Your task to perform on an android device: Open calendar and show me the second week of next month Image 0: 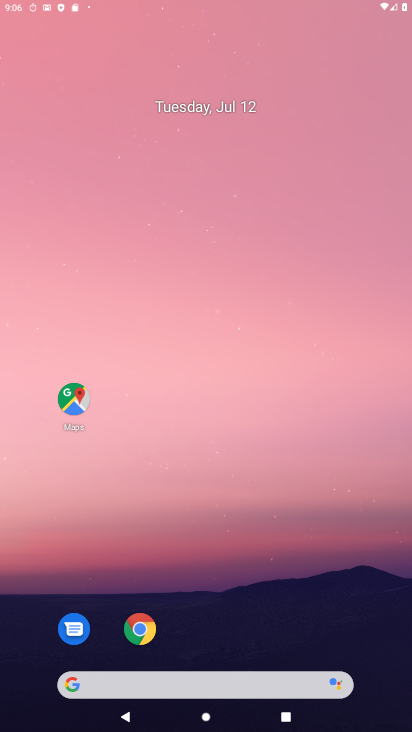
Step 0: drag from (230, 662) to (132, 7)
Your task to perform on an android device: Open calendar and show me the second week of next month Image 1: 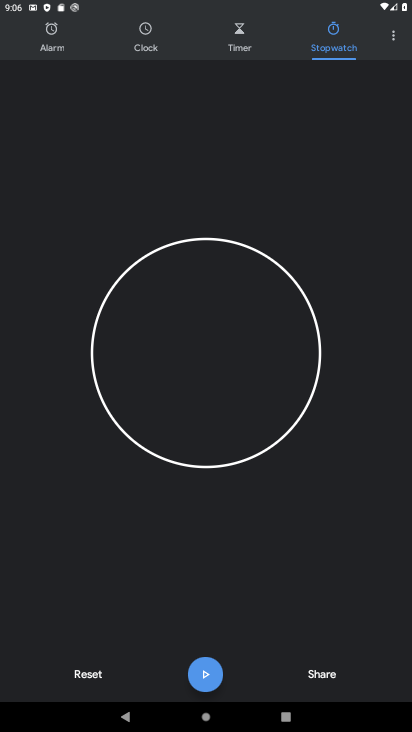
Step 1: press back button
Your task to perform on an android device: Open calendar and show me the second week of next month Image 2: 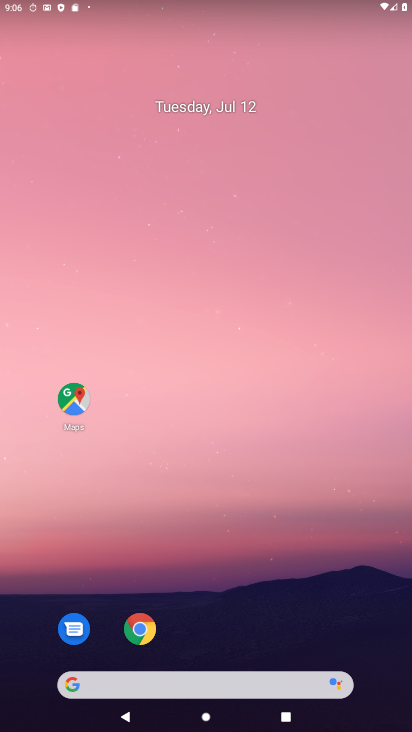
Step 2: drag from (245, 710) to (152, 0)
Your task to perform on an android device: Open calendar and show me the second week of next month Image 3: 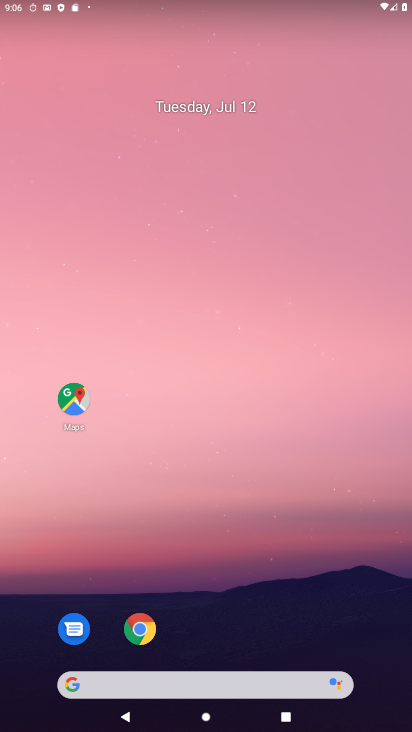
Step 3: drag from (243, 661) to (169, 124)
Your task to perform on an android device: Open calendar and show me the second week of next month Image 4: 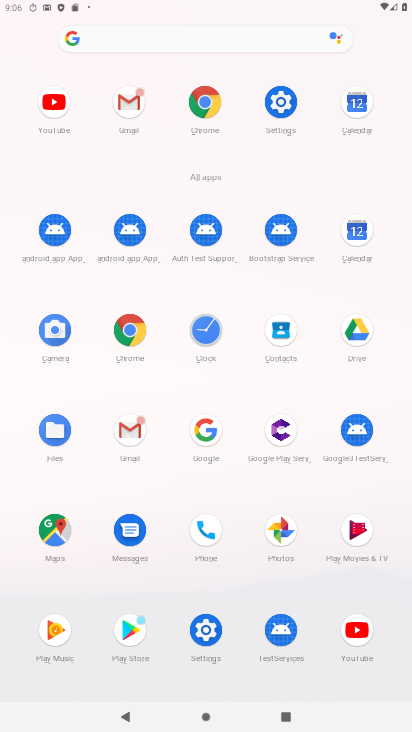
Step 4: click (358, 235)
Your task to perform on an android device: Open calendar and show me the second week of next month Image 5: 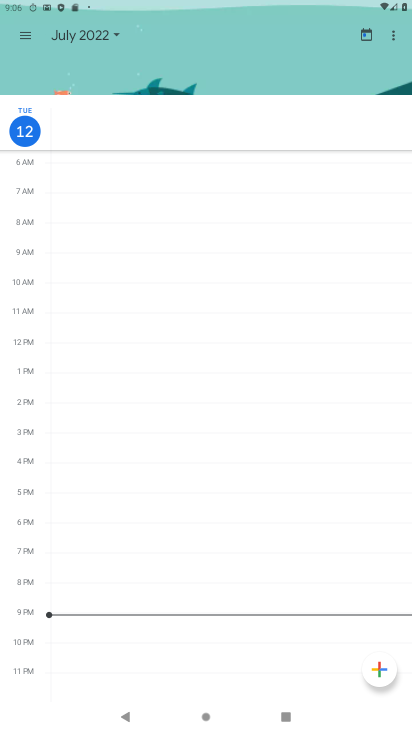
Step 5: click (111, 39)
Your task to perform on an android device: Open calendar and show me the second week of next month Image 6: 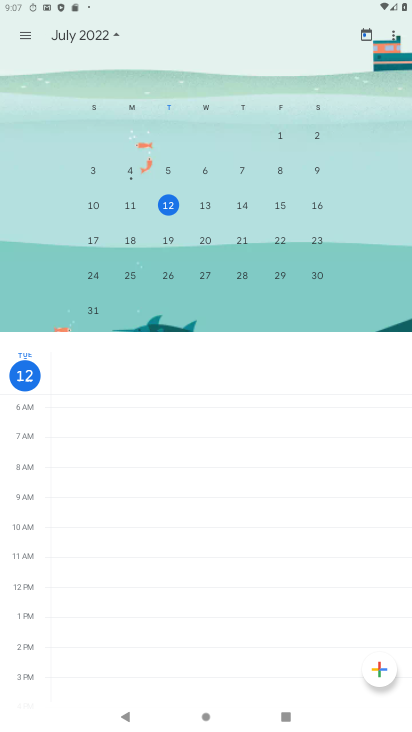
Step 6: drag from (273, 202) to (29, 254)
Your task to perform on an android device: Open calendar and show me the second week of next month Image 7: 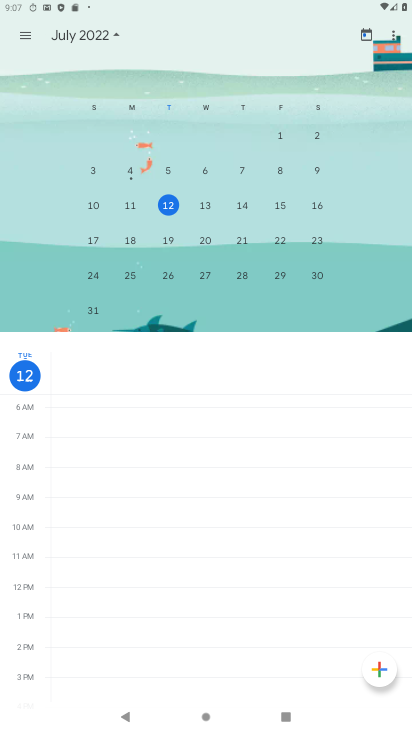
Step 7: click (167, 241)
Your task to perform on an android device: Open calendar and show me the second week of next month Image 8: 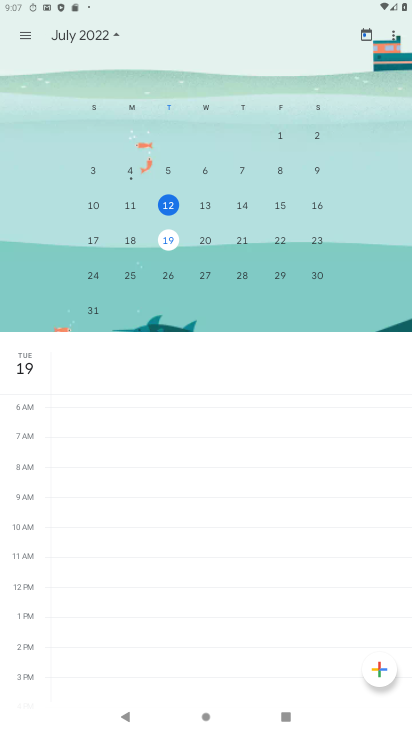
Step 8: drag from (311, 220) to (25, 224)
Your task to perform on an android device: Open calendar and show me the second week of next month Image 9: 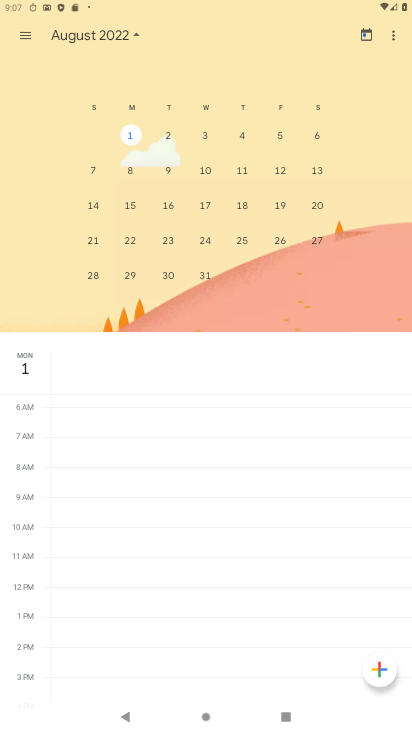
Step 9: click (164, 174)
Your task to perform on an android device: Open calendar and show me the second week of next month Image 10: 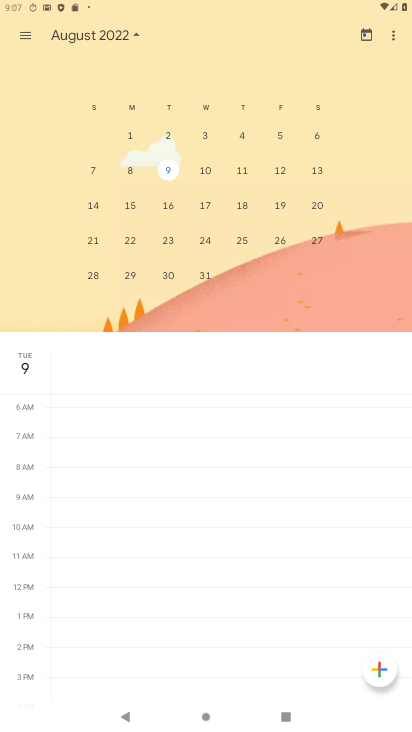
Step 10: task complete